Your task to perform on an android device: When is my next meeting? Image 0: 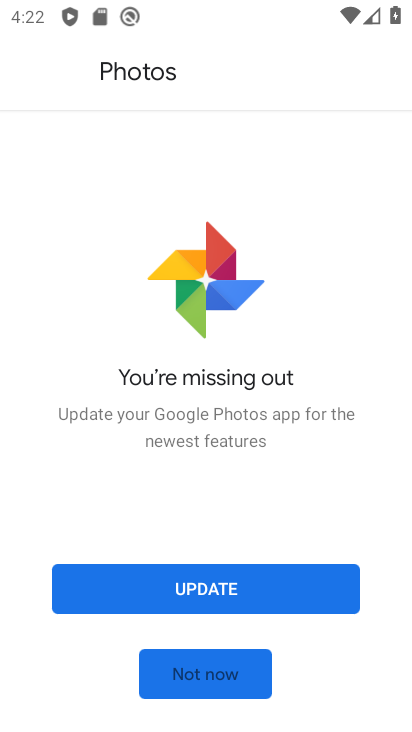
Step 0: click (241, 666)
Your task to perform on an android device: When is my next meeting? Image 1: 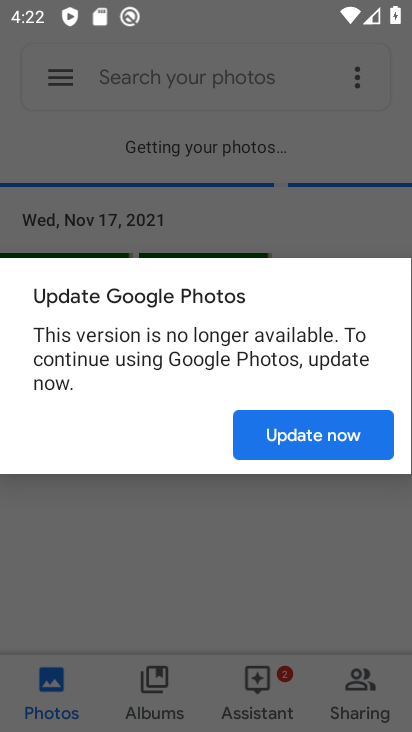
Step 1: press home button
Your task to perform on an android device: When is my next meeting? Image 2: 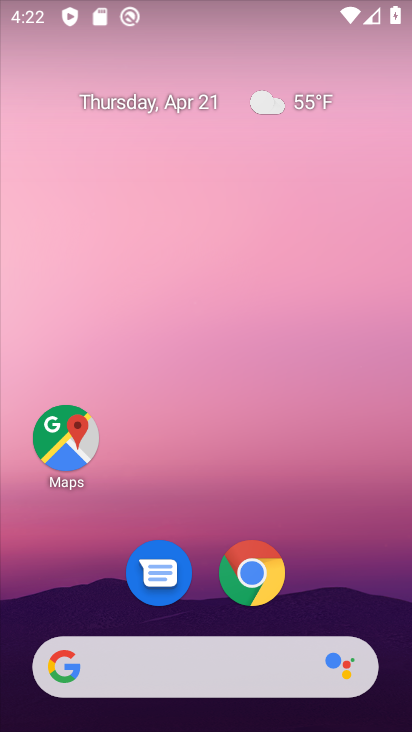
Step 2: drag from (366, 570) to (369, 88)
Your task to perform on an android device: When is my next meeting? Image 3: 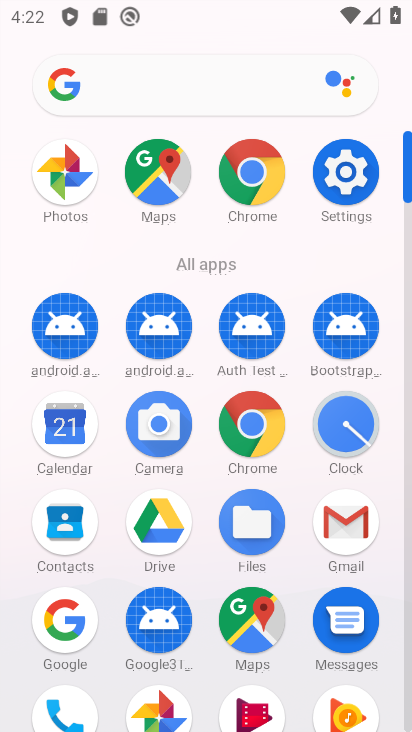
Step 3: click (69, 421)
Your task to perform on an android device: When is my next meeting? Image 4: 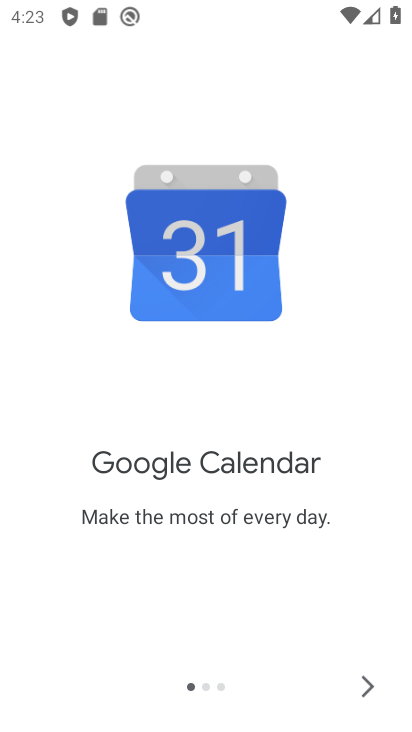
Step 4: click (374, 688)
Your task to perform on an android device: When is my next meeting? Image 5: 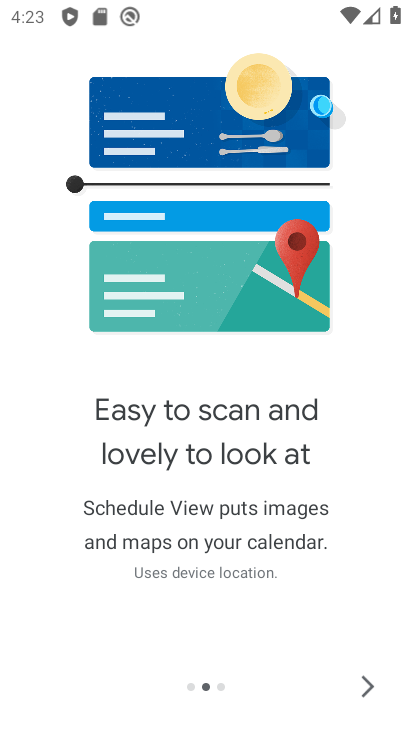
Step 5: click (374, 688)
Your task to perform on an android device: When is my next meeting? Image 6: 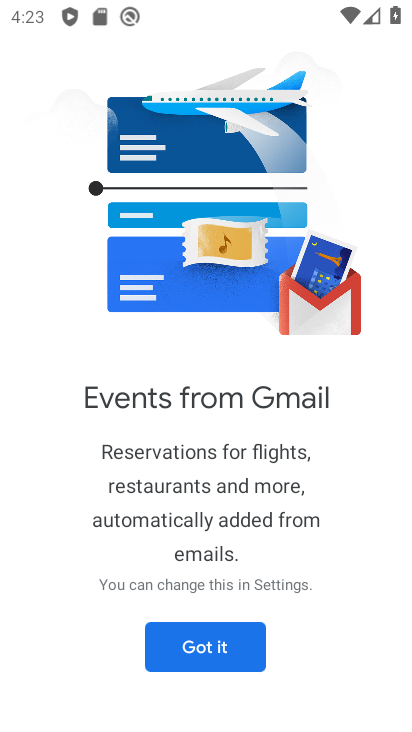
Step 6: click (237, 648)
Your task to perform on an android device: When is my next meeting? Image 7: 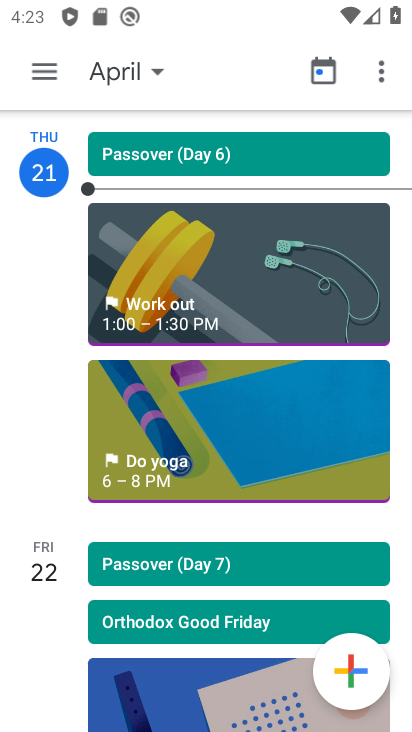
Step 7: task complete